Your task to perform on an android device: Go to Yahoo.com Image 0: 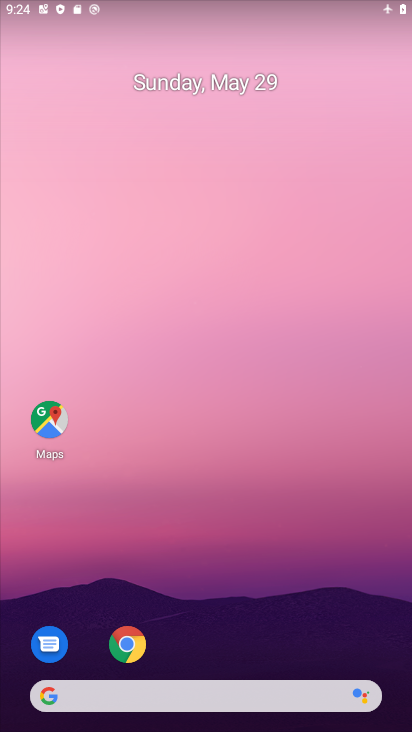
Step 0: drag from (224, 618) to (294, 150)
Your task to perform on an android device: Go to Yahoo.com Image 1: 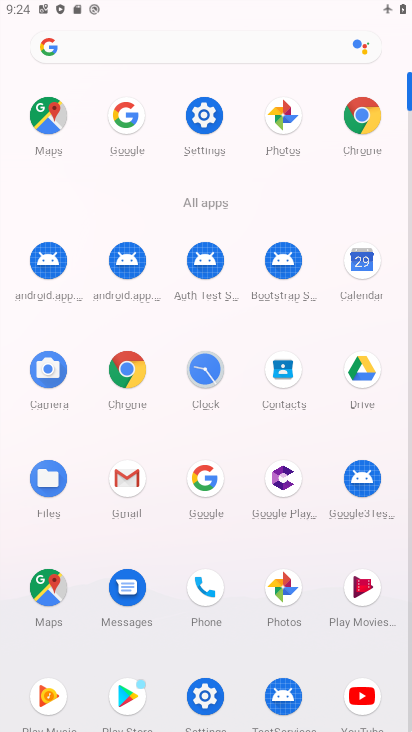
Step 1: click (366, 110)
Your task to perform on an android device: Go to Yahoo.com Image 2: 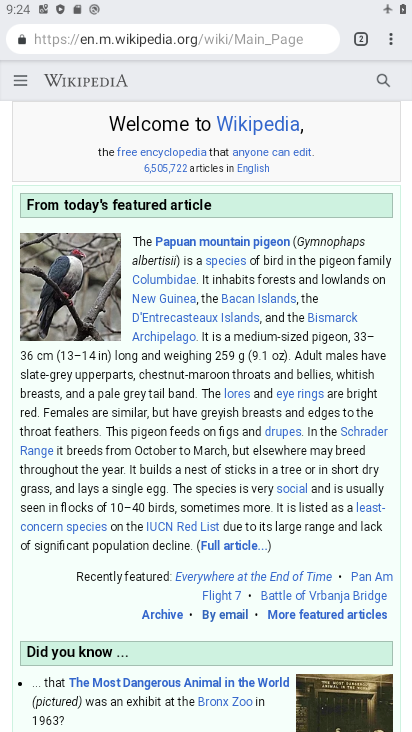
Step 2: click (394, 32)
Your task to perform on an android device: Go to Yahoo.com Image 3: 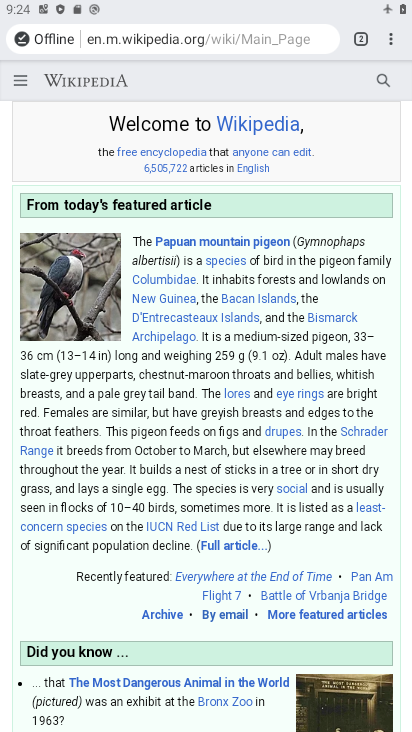
Step 3: click (387, 45)
Your task to perform on an android device: Go to Yahoo.com Image 4: 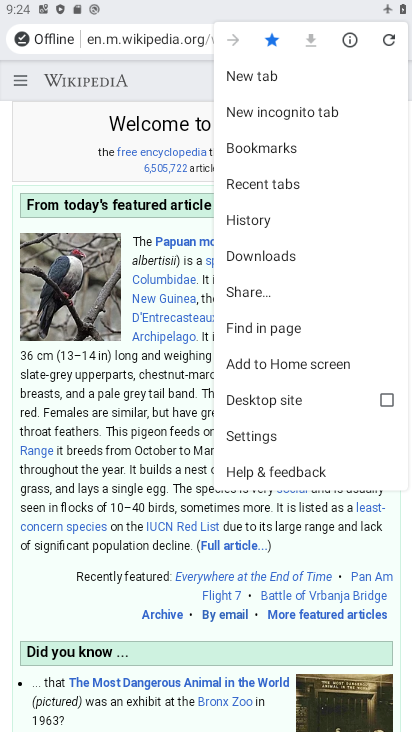
Step 4: click (286, 74)
Your task to perform on an android device: Go to Yahoo.com Image 5: 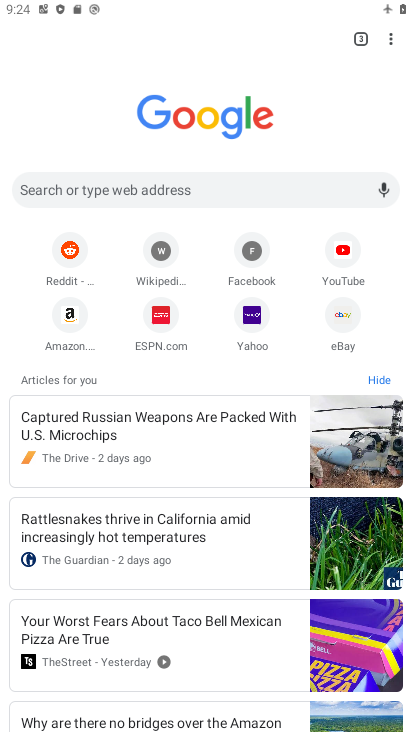
Step 5: click (248, 323)
Your task to perform on an android device: Go to Yahoo.com Image 6: 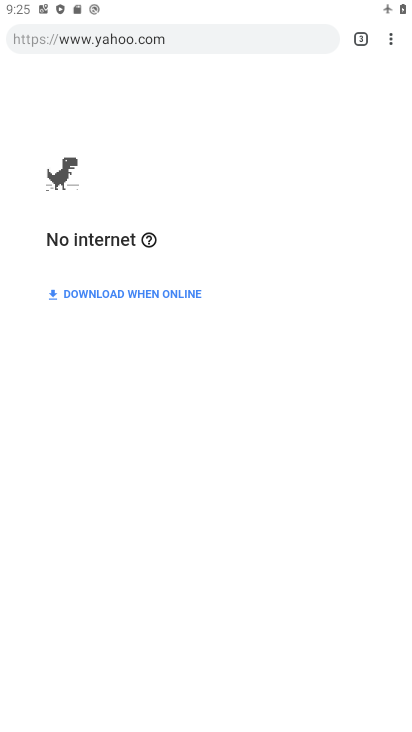
Step 6: task complete